Your task to perform on an android device: Open Google Chrome Image 0: 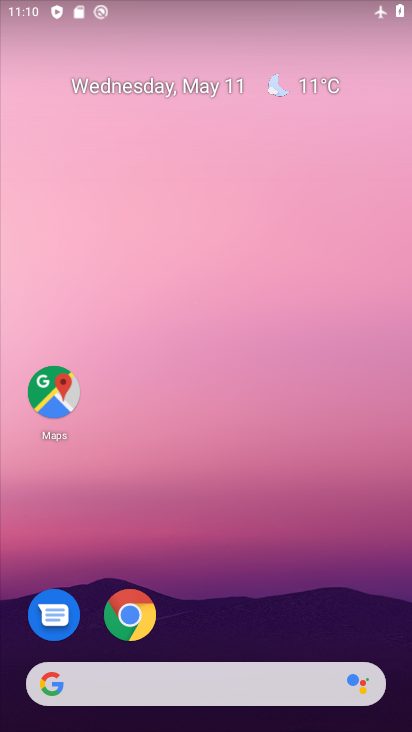
Step 0: click (130, 612)
Your task to perform on an android device: Open Google Chrome Image 1: 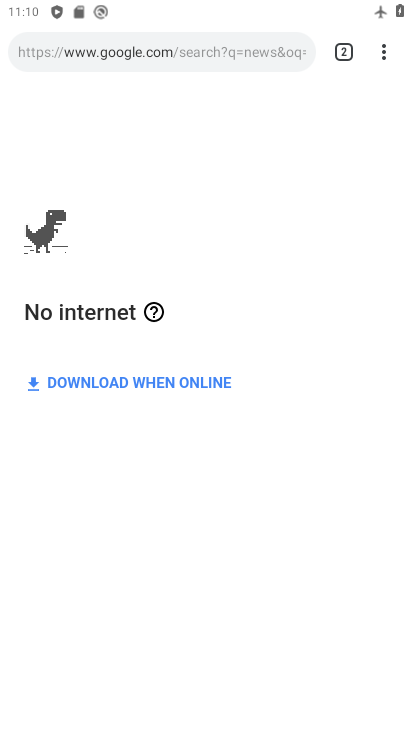
Step 1: task complete